Your task to perform on an android device: empty trash in the gmail app Image 0: 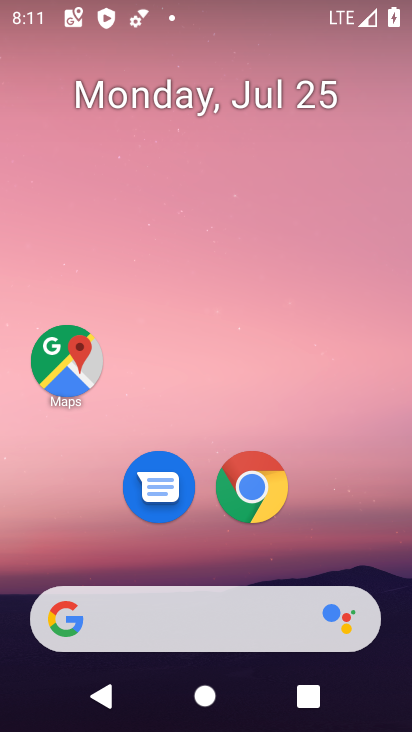
Step 0: drag from (233, 553) to (343, 28)
Your task to perform on an android device: empty trash in the gmail app Image 1: 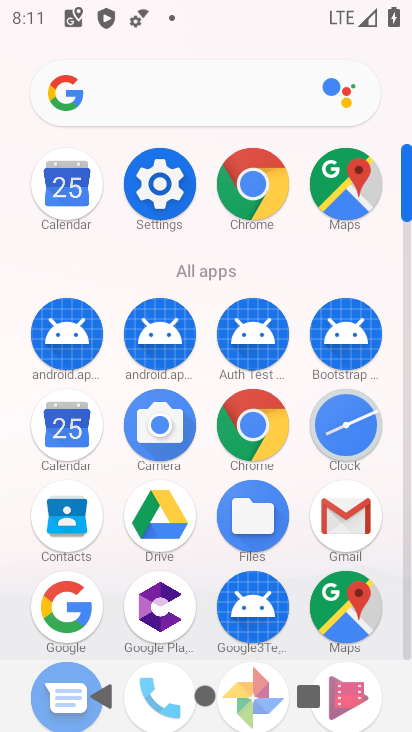
Step 1: click (342, 519)
Your task to perform on an android device: empty trash in the gmail app Image 2: 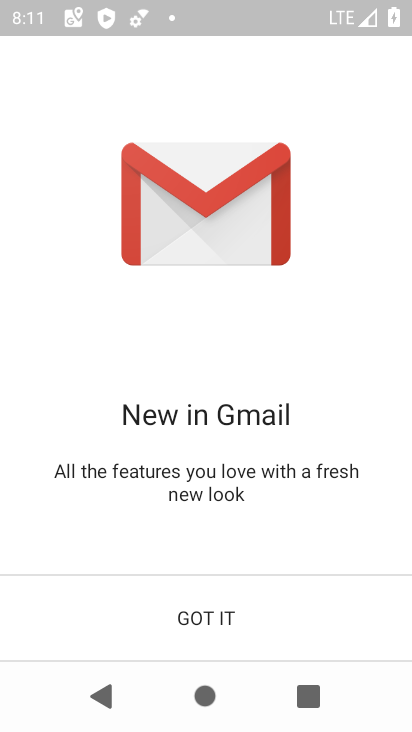
Step 2: click (154, 626)
Your task to perform on an android device: empty trash in the gmail app Image 3: 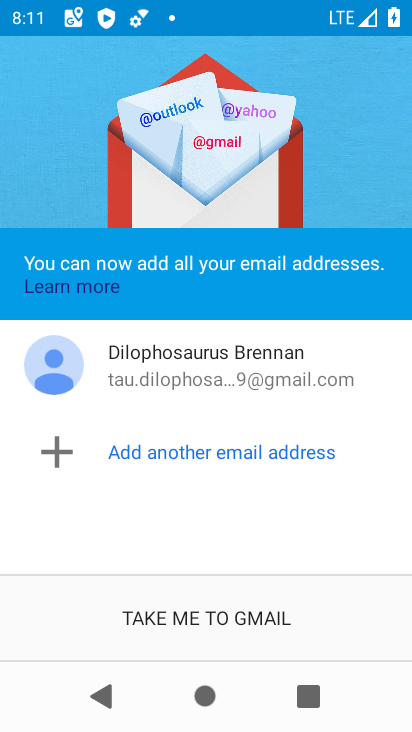
Step 3: click (160, 626)
Your task to perform on an android device: empty trash in the gmail app Image 4: 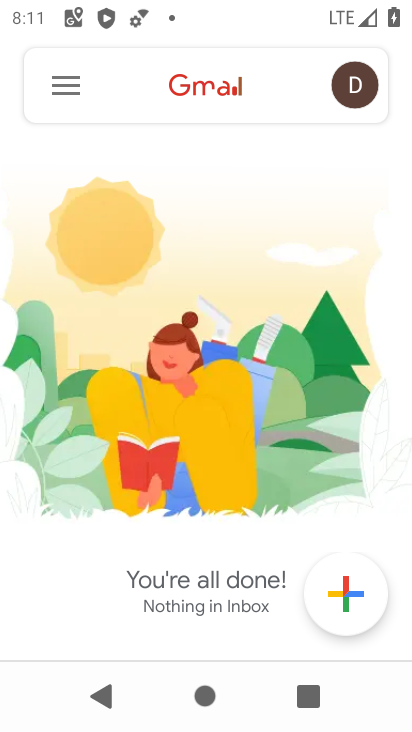
Step 4: click (65, 74)
Your task to perform on an android device: empty trash in the gmail app Image 5: 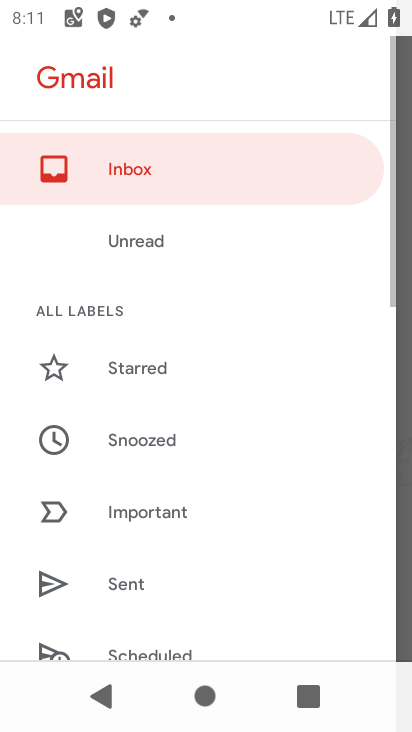
Step 5: drag from (150, 585) to (228, 74)
Your task to perform on an android device: empty trash in the gmail app Image 6: 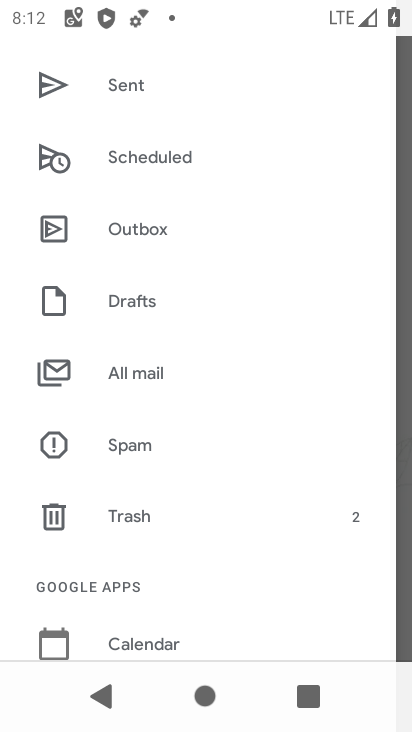
Step 6: click (118, 513)
Your task to perform on an android device: empty trash in the gmail app Image 7: 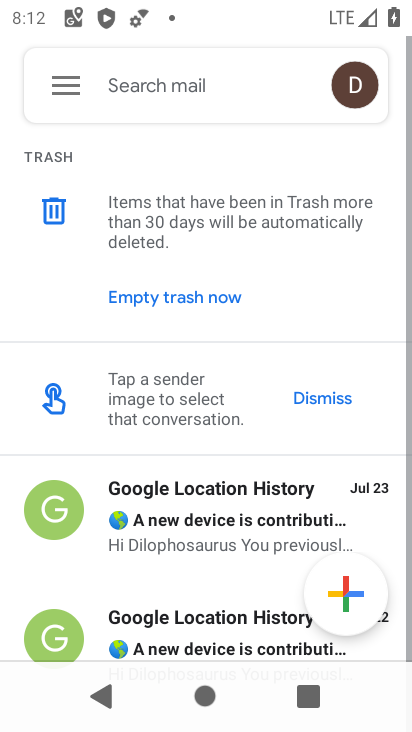
Step 7: click (167, 312)
Your task to perform on an android device: empty trash in the gmail app Image 8: 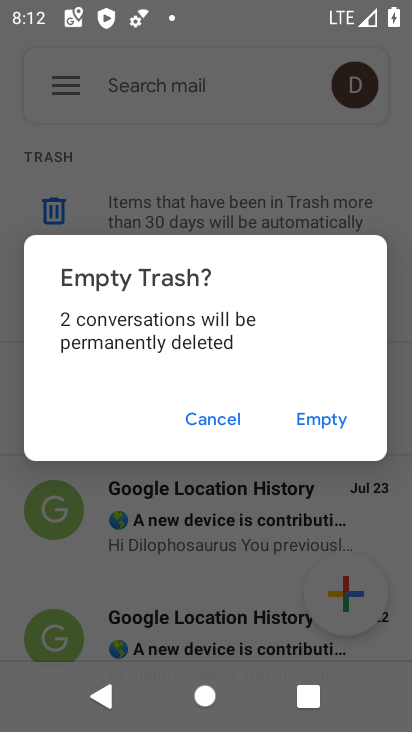
Step 8: click (319, 428)
Your task to perform on an android device: empty trash in the gmail app Image 9: 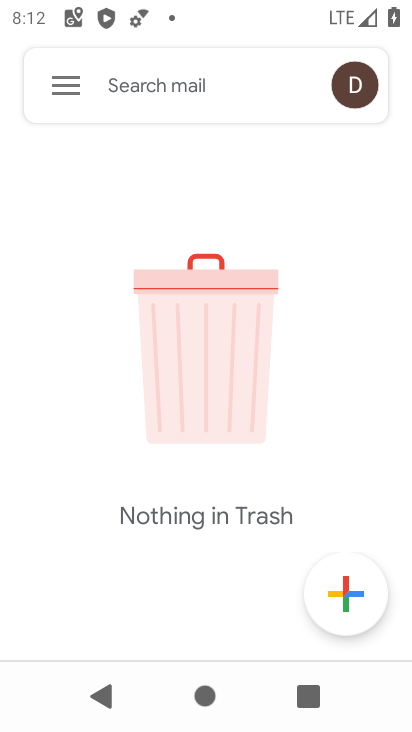
Step 9: task complete